Your task to perform on an android device: What's on my calendar tomorrow? Image 0: 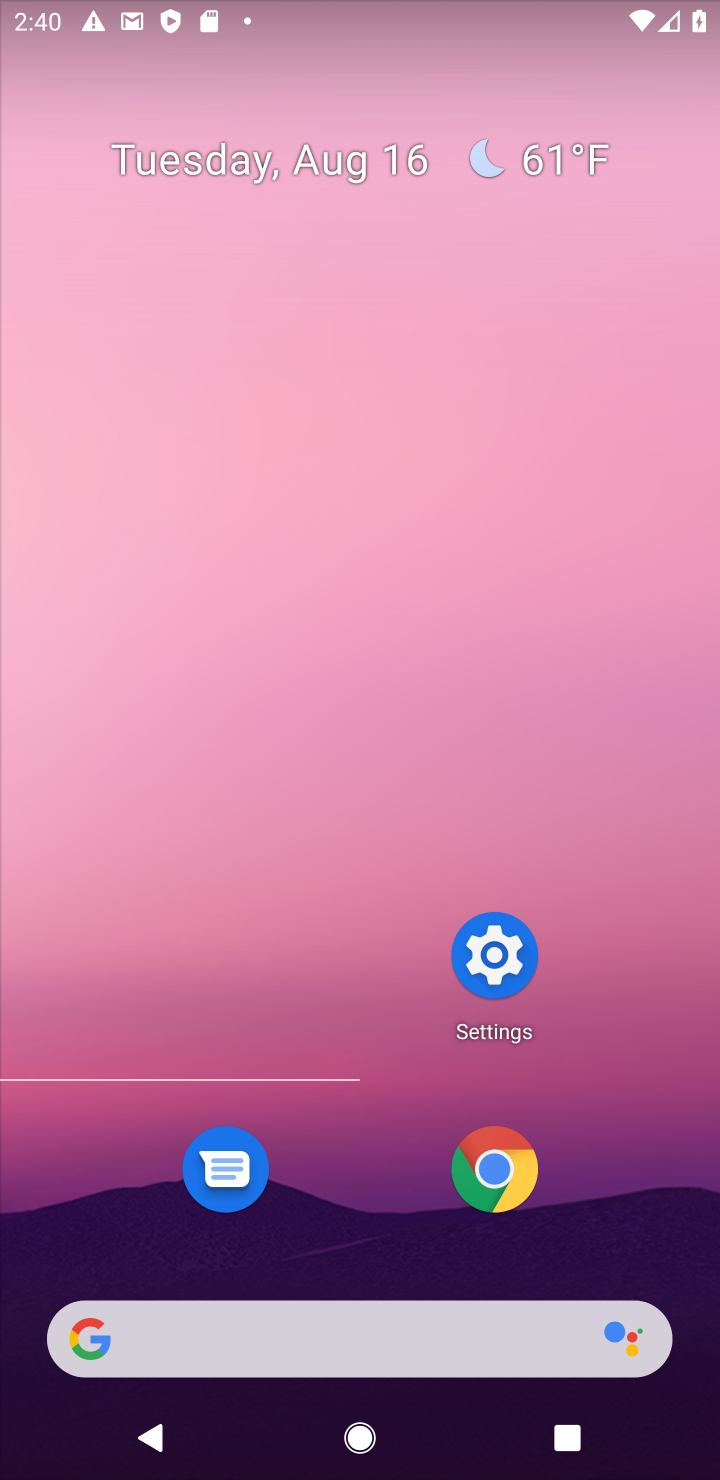
Step 0: press home button
Your task to perform on an android device: What's on my calendar tomorrow? Image 1: 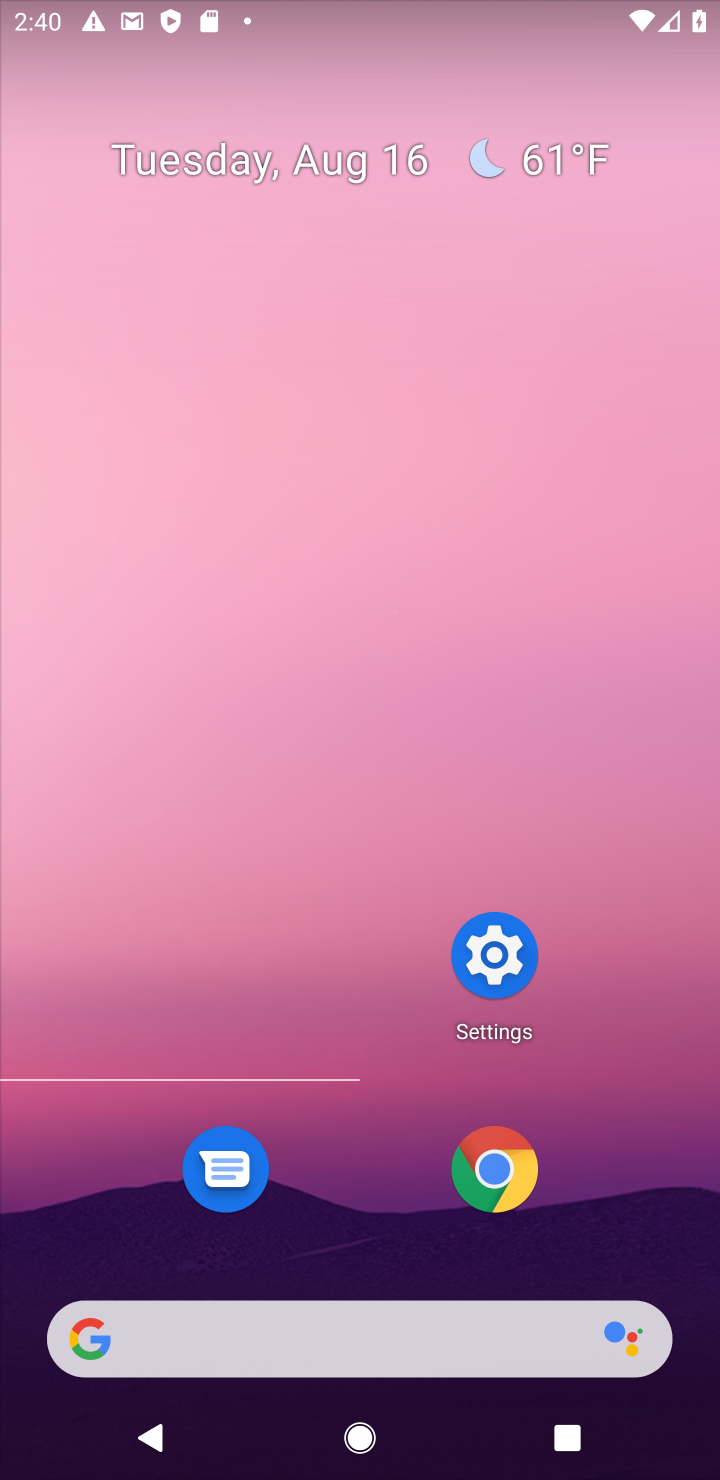
Step 1: drag from (409, 1211) to (613, 193)
Your task to perform on an android device: What's on my calendar tomorrow? Image 2: 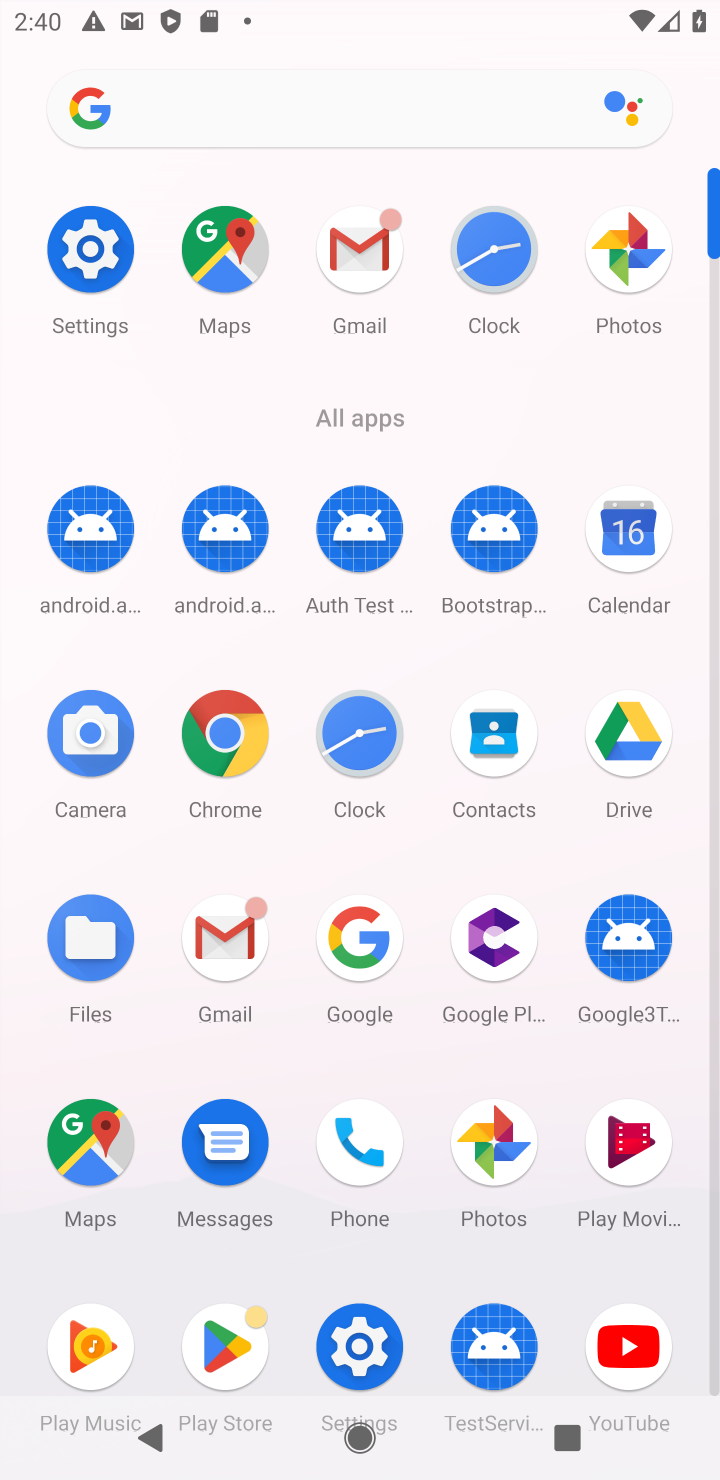
Step 2: click (638, 540)
Your task to perform on an android device: What's on my calendar tomorrow? Image 3: 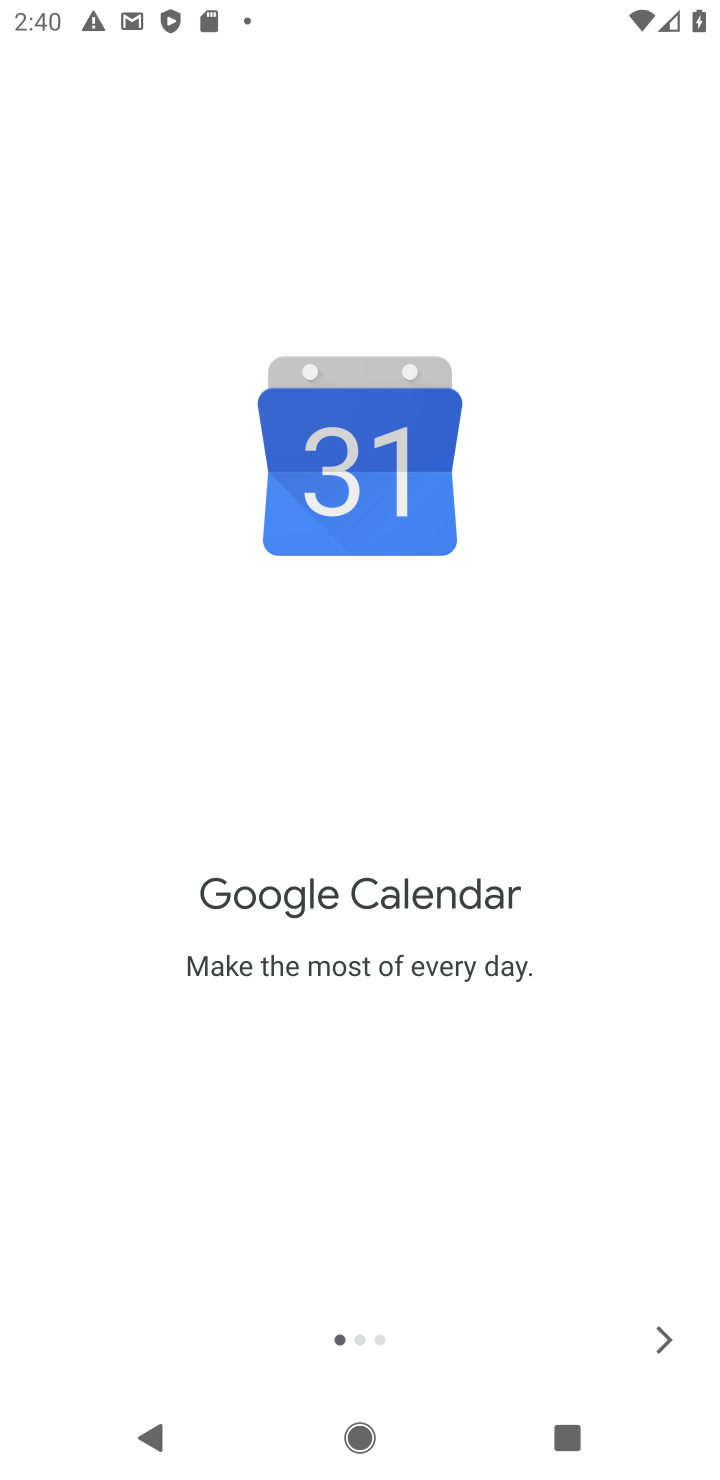
Step 3: click (660, 1330)
Your task to perform on an android device: What's on my calendar tomorrow? Image 4: 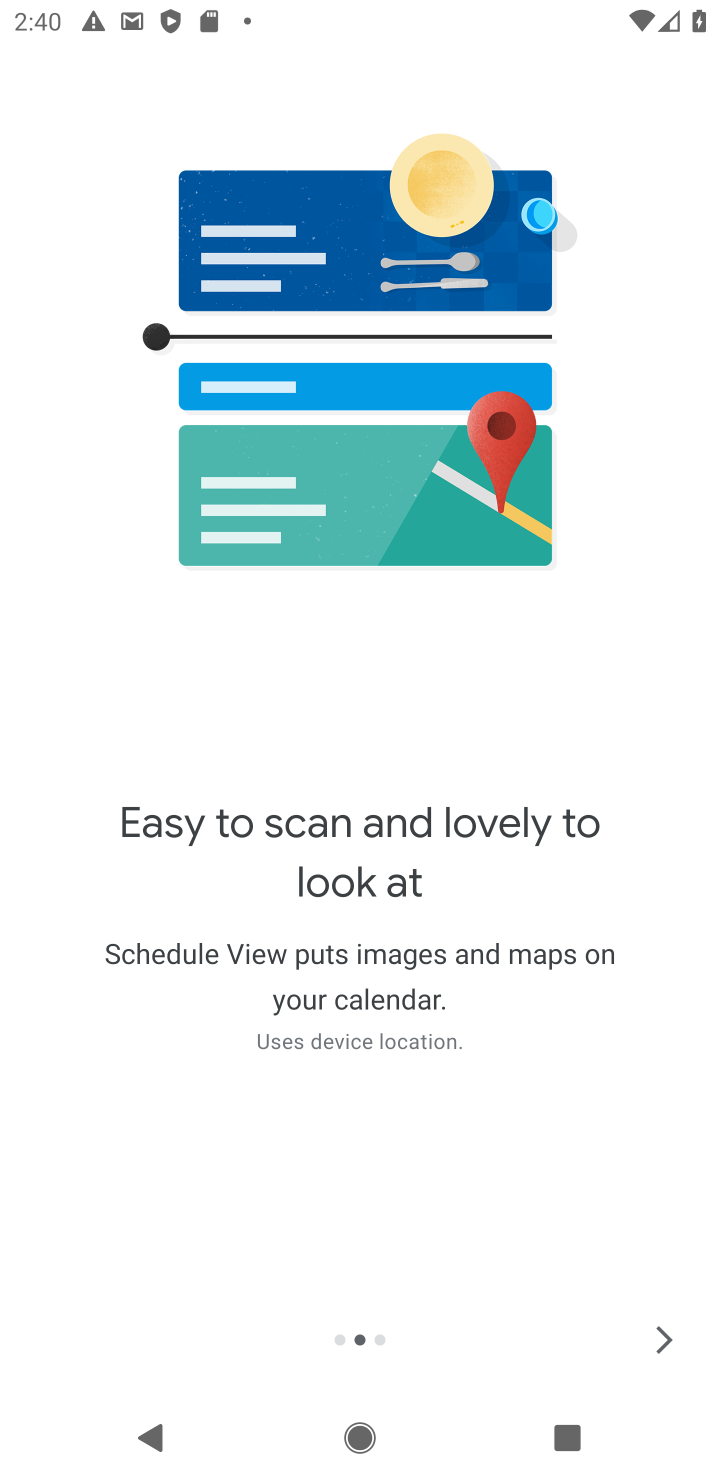
Step 4: click (660, 1339)
Your task to perform on an android device: What's on my calendar tomorrow? Image 5: 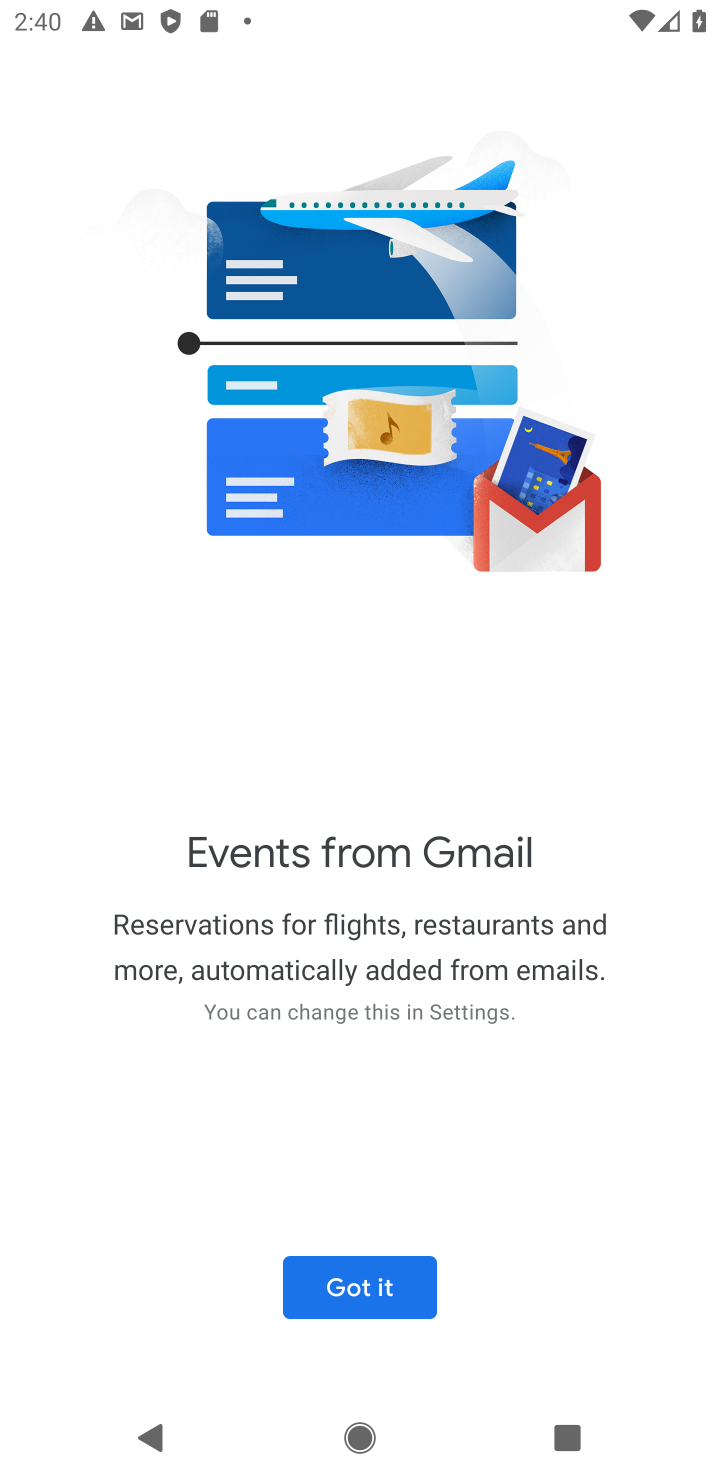
Step 5: click (346, 1295)
Your task to perform on an android device: What's on my calendar tomorrow? Image 6: 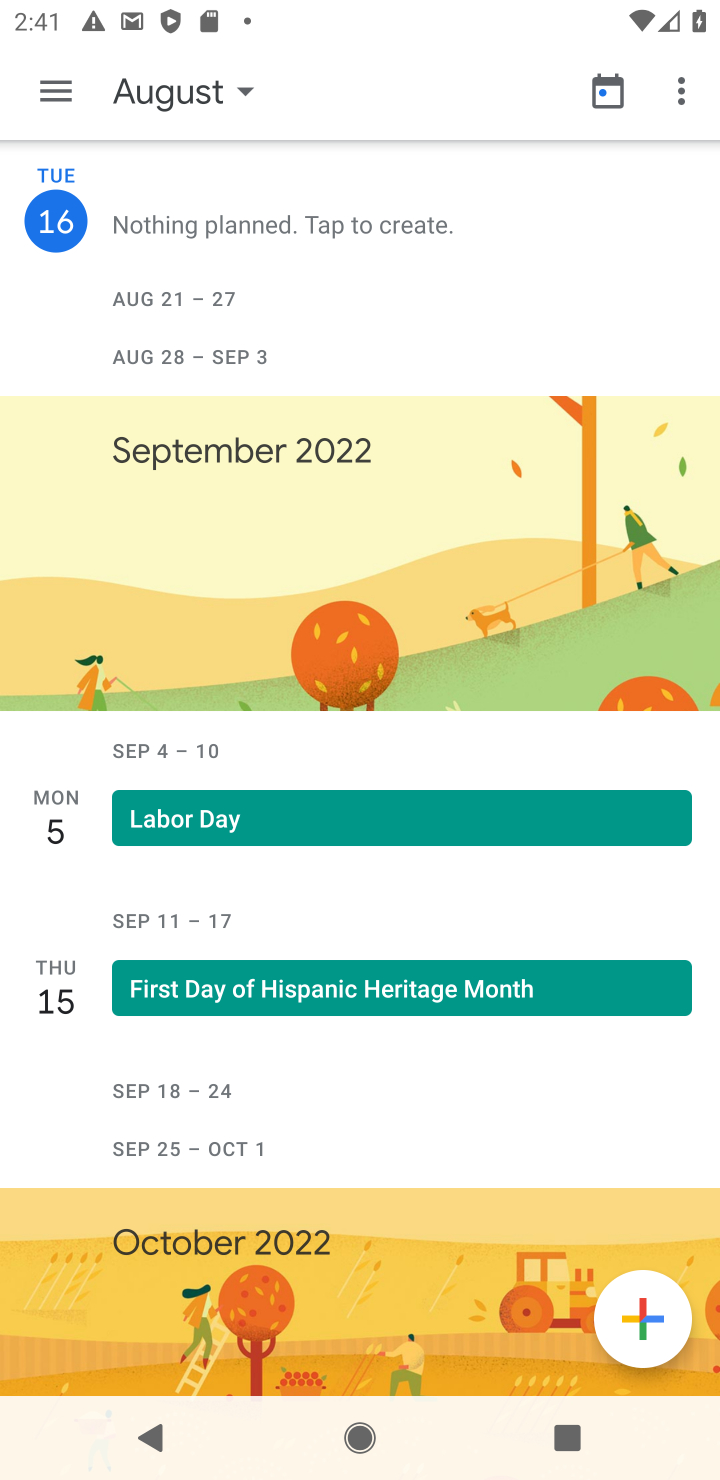
Step 6: click (145, 91)
Your task to perform on an android device: What's on my calendar tomorrow? Image 7: 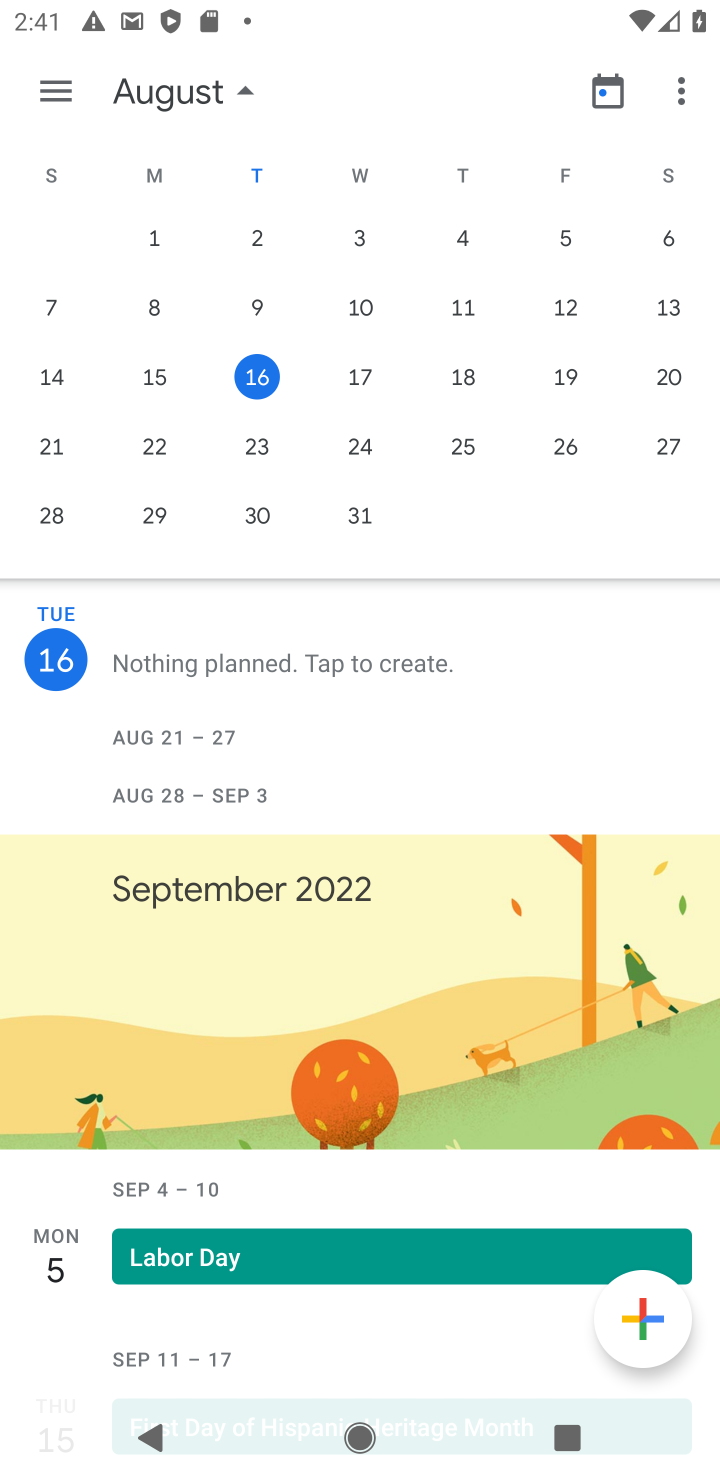
Step 7: click (362, 379)
Your task to perform on an android device: What's on my calendar tomorrow? Image 8: 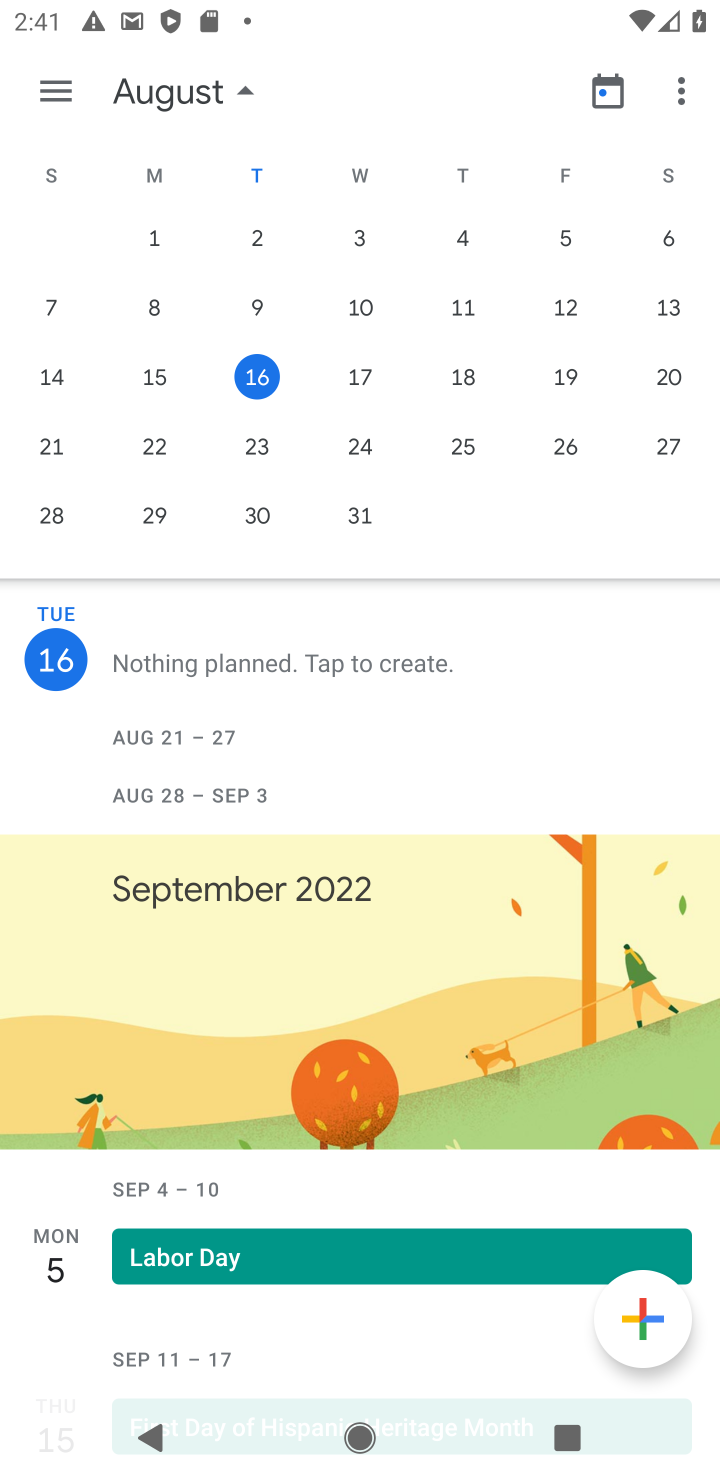
Step 8: click (350, 375)
Your task to perform on an android device: What's on my calendar tomorrow? Image 9: 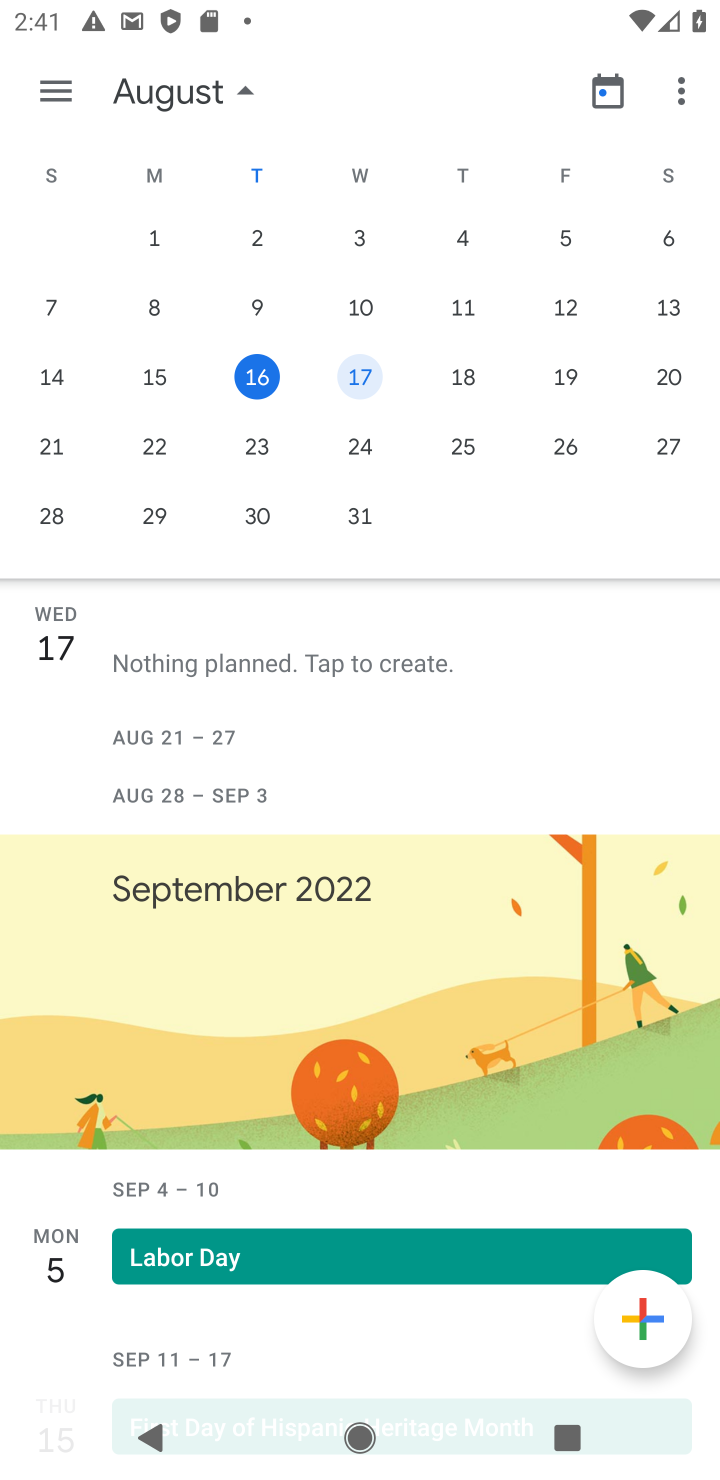
Step 9: click (58, 94)
Your task to perform on an android device: What's on my calendar tomorrow? Image 10: 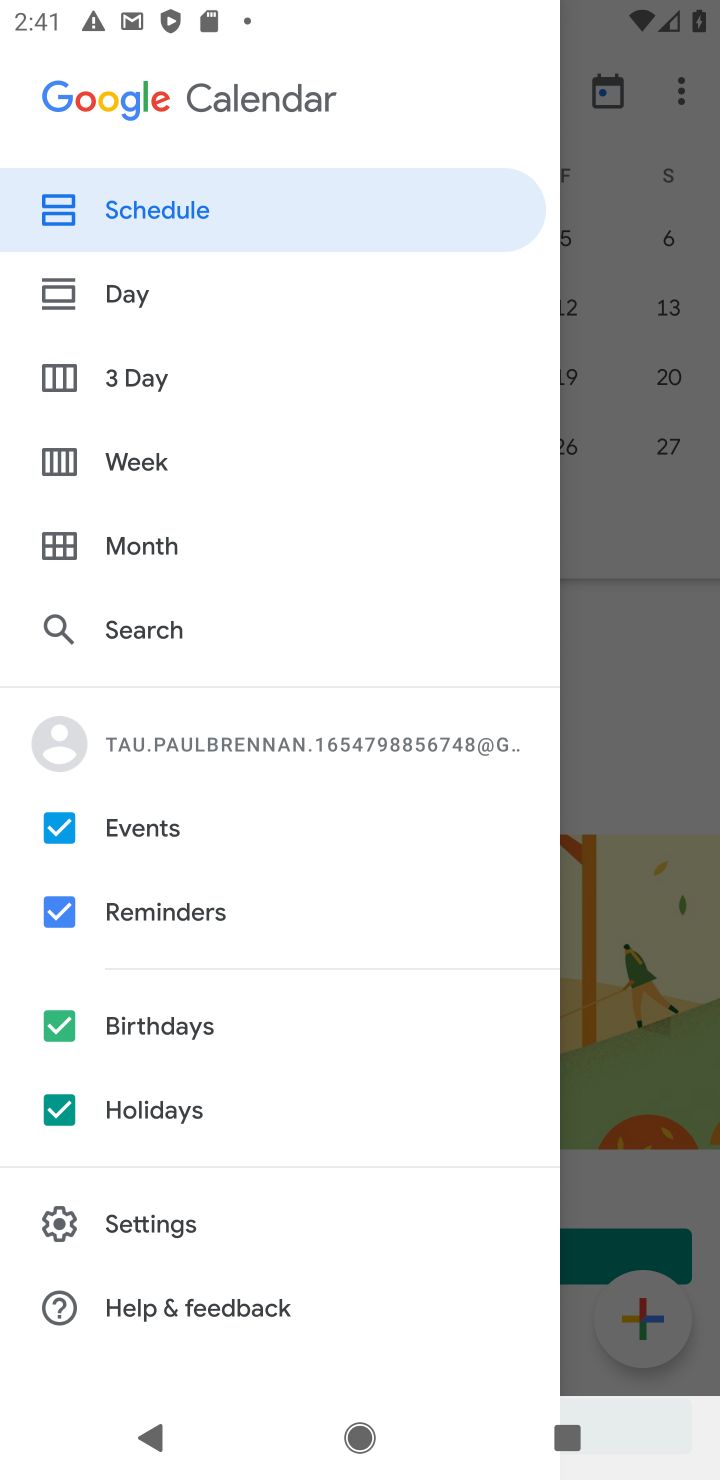
Step 10: click (137, 300)
Your task to perform on an android device: What's on my calendar tomorrow? Image 11: 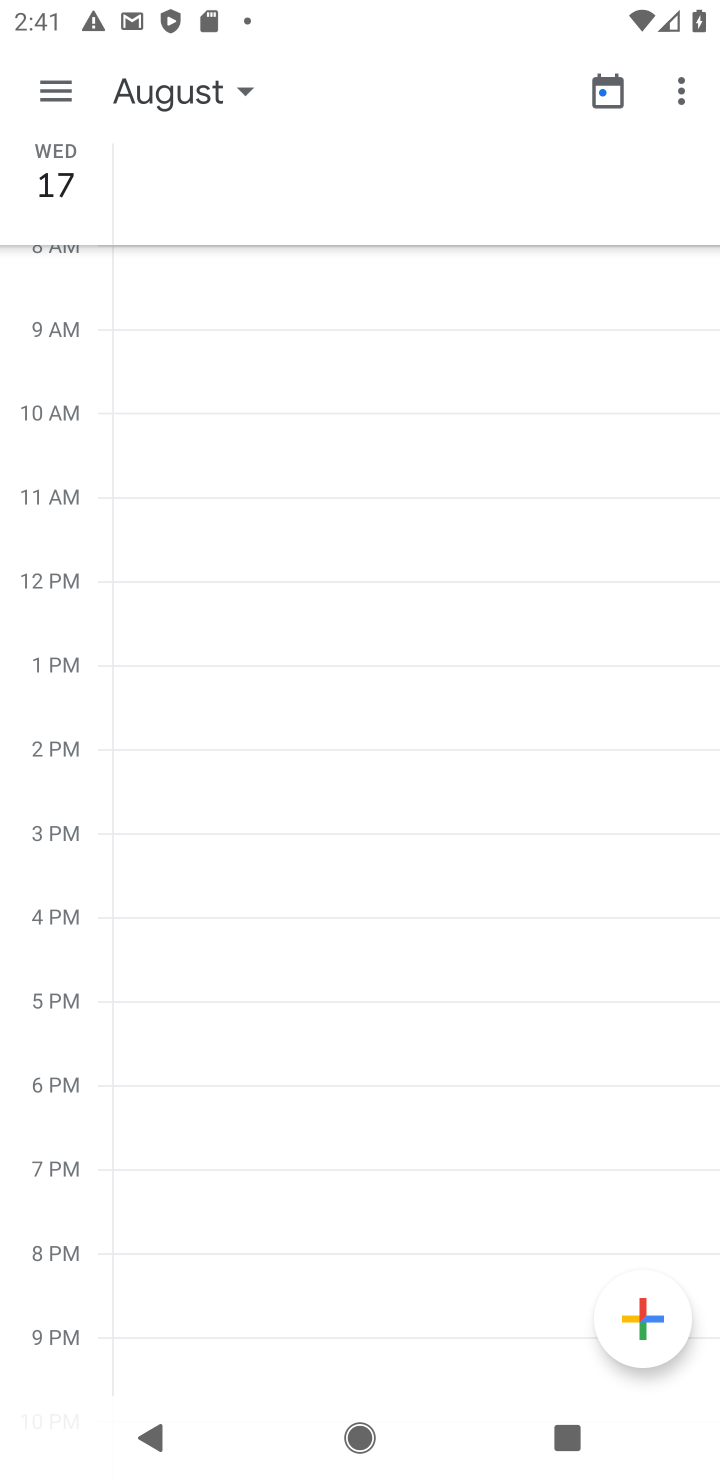
Step 11: click (63, 80)
Your task to perform on an android device: What's on my calendar tomorrow? Image 12: 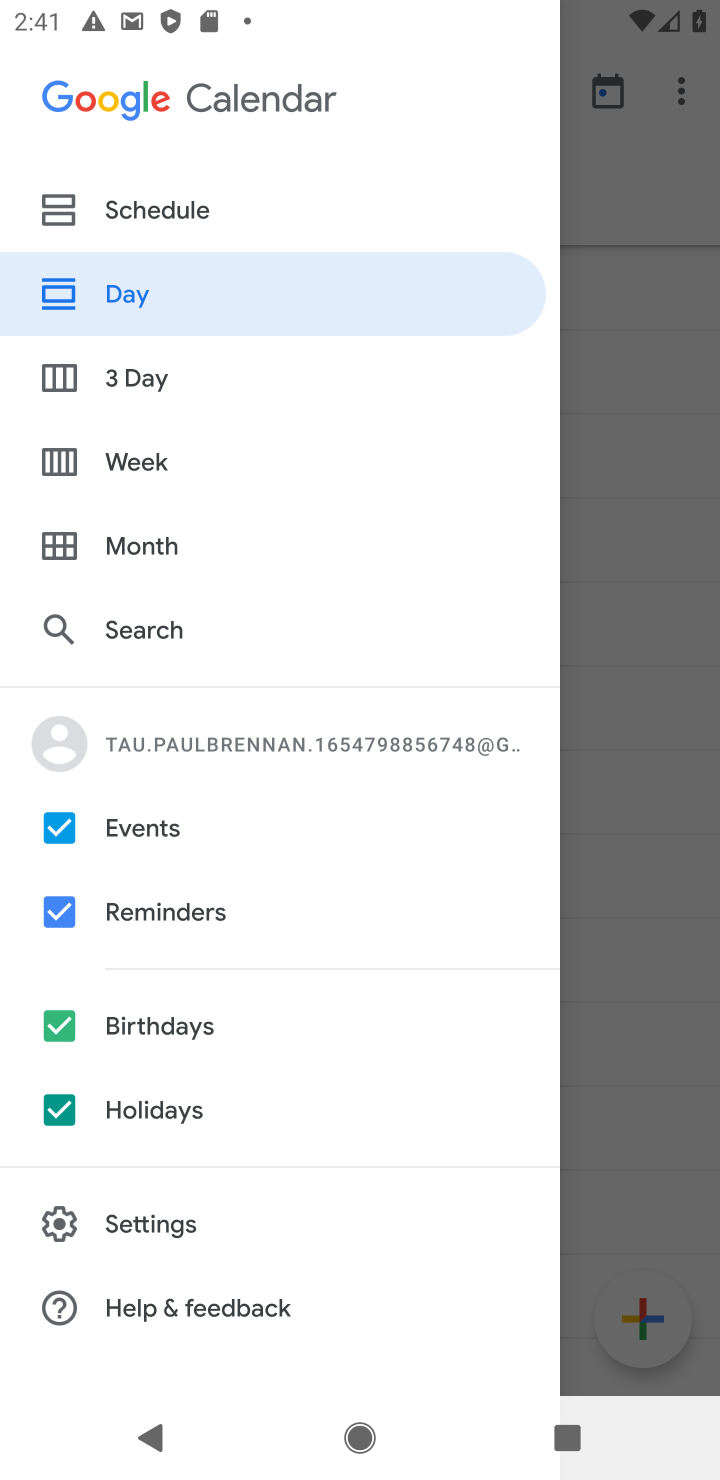
Step 12: click (192, 213)
Your task to perform on an android device: What's on my calendar tomorrow? Image 13: 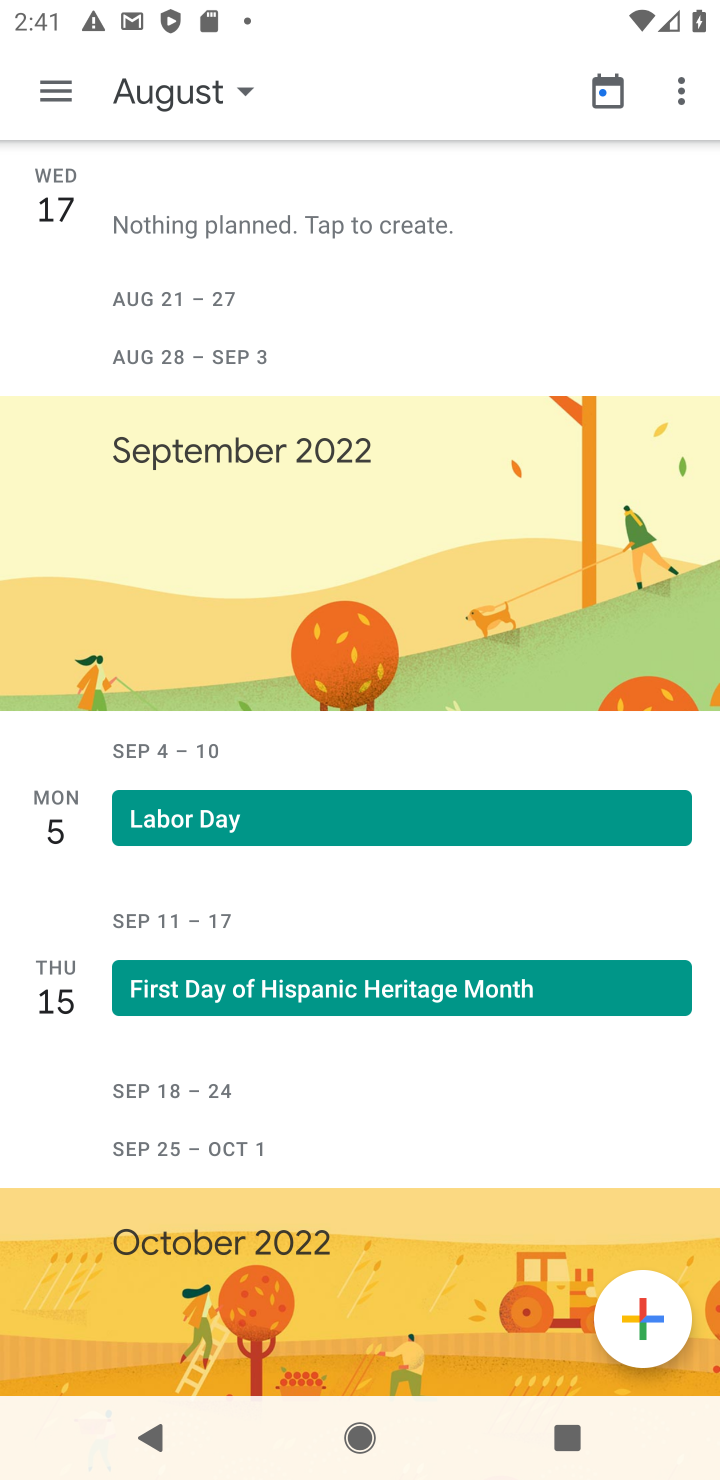
Step 13: task complete